Your task to perform on an android device: stop showing notifications on the lock screen Image 0: 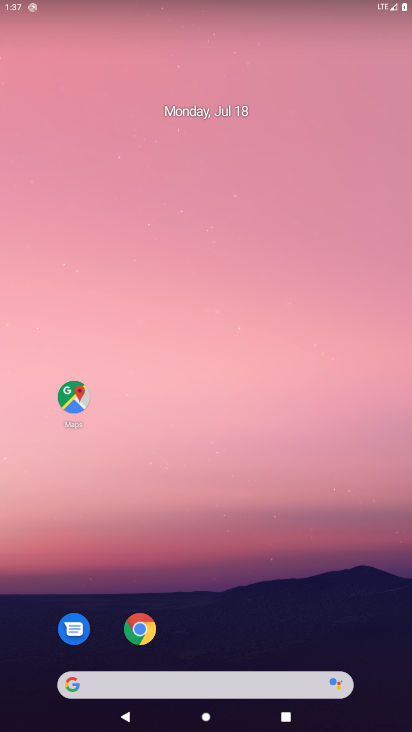
Step 0: drag from (219, 473) to (160, 188)
Your task to perform on an android device: stop showing notifications on the lock screen Image 1: 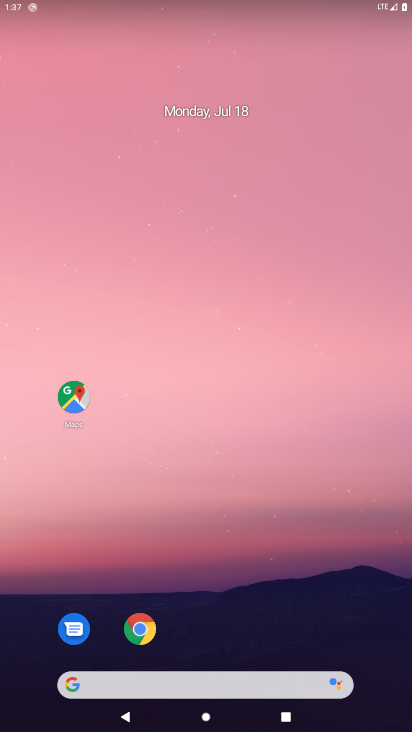
Step 1: drag from (258, 604) to (264, 173)
Your task to perform on an android device: stop showing notifications on the lock screen Image 2: 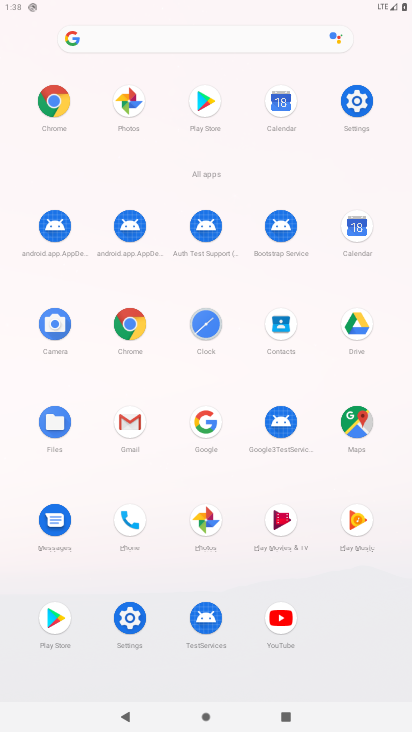
Step 2: click (120, 618)
Your task to perform on an android device: stop showing notifications on the lock screen Image 3: 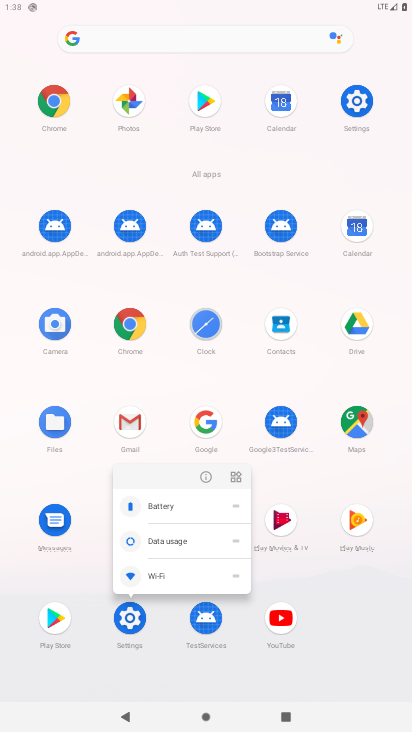
Step 3: click (373, 642)
Your task to perform on an android device: stop showing notifications on the lock screen Image 4: 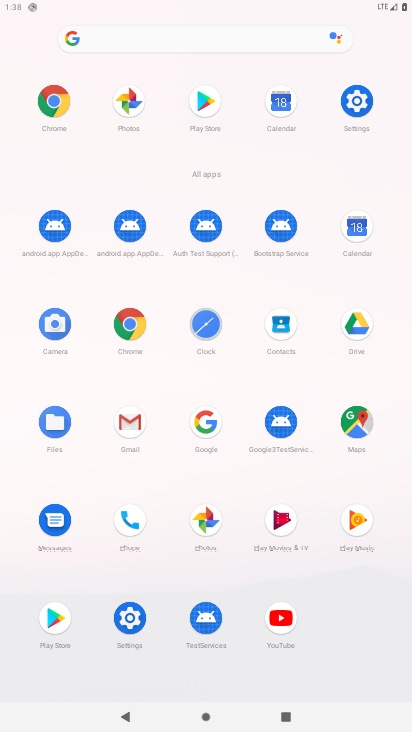
Step 4: click (136, 622)
Your task to perform on an android device: stop showing notifications on the lock screen Image 5: 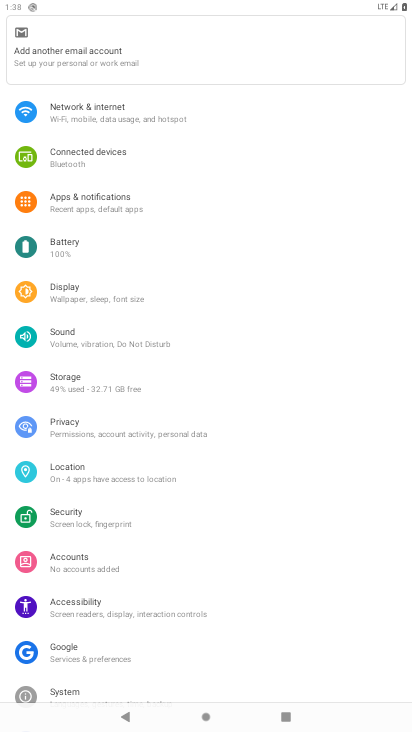
Step 5: task complete